Your task to perform on an android device: Go to network settings Image 0: 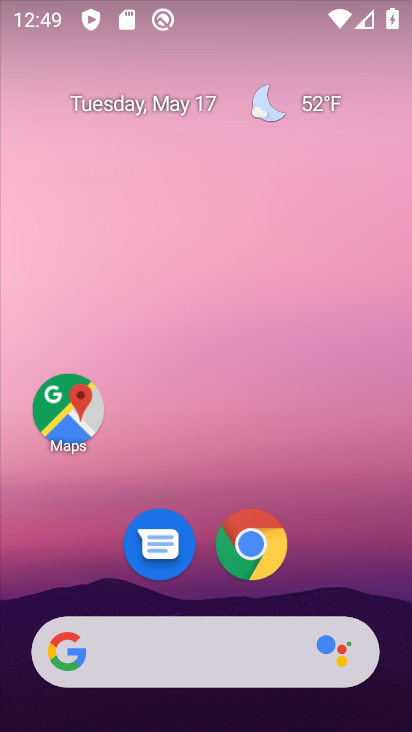
Step 0: drag from (375, 585) to (364, 36)
Your task to perform on an android device: Go to network settings Image 1: 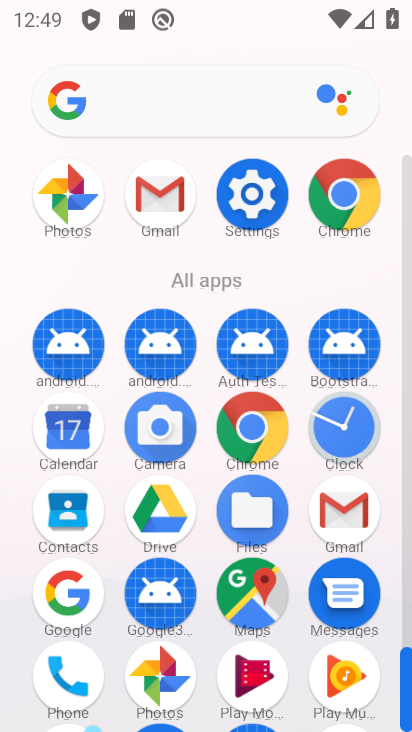
Step 1: click (264, 188)
Your task to perform on an android device: Go to network settings Image 2: 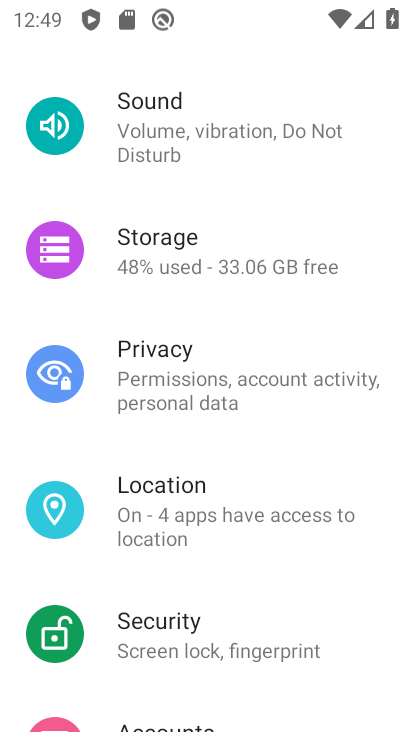
Step 2: drag from (264, 188) to (235, 614)
Your task to perform on an android device: Go to network settings Image 3: 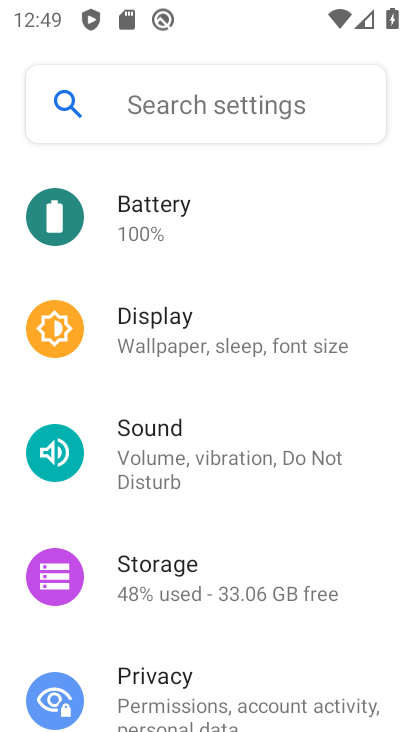
Step 3: drag from (291, 213) to (264, 629)
Your task to perform on an android device: Go to network settings Image 4: 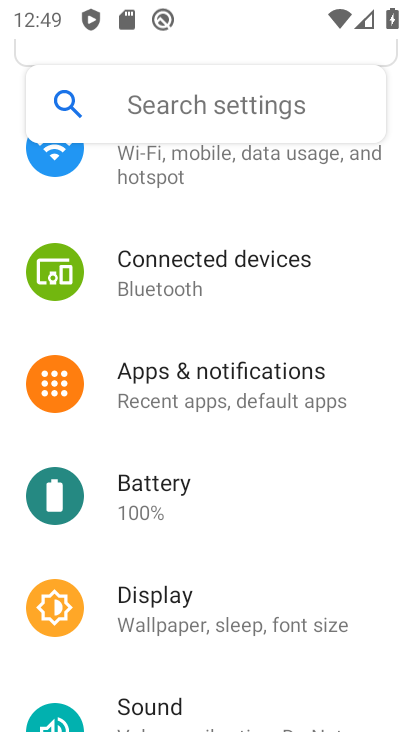
Step 4: drag from (231, 177) to (233, 625)
Your task to perform on an android device: Go to network settings Image 5: 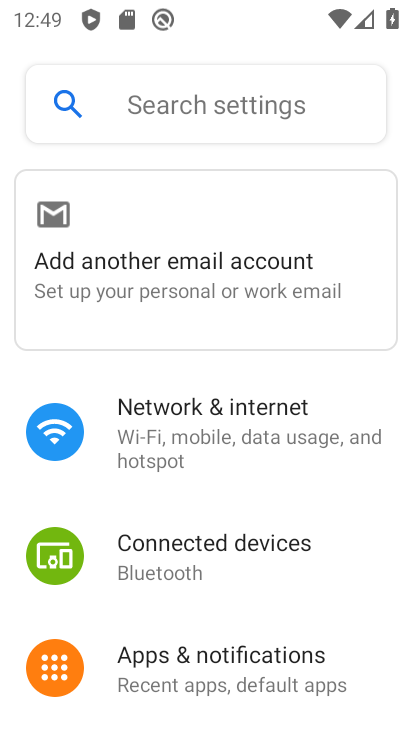
Step 5: click (206, 423)
Your task to perform on an android device: Go to network settings Image 6: 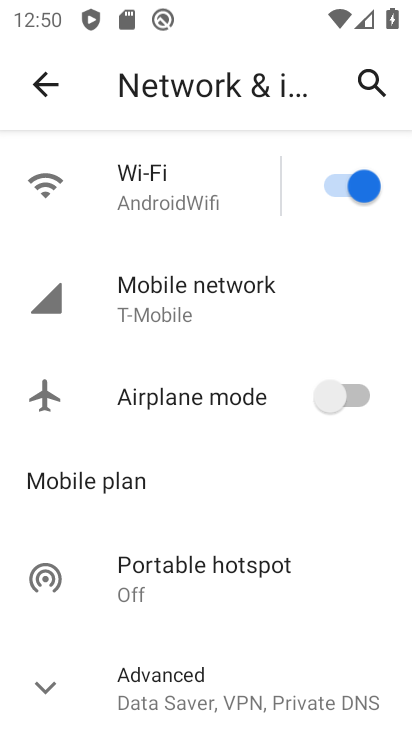
Step 6: task complete